Your task to perform on an android device: Go to Yahoo.com Image 0: 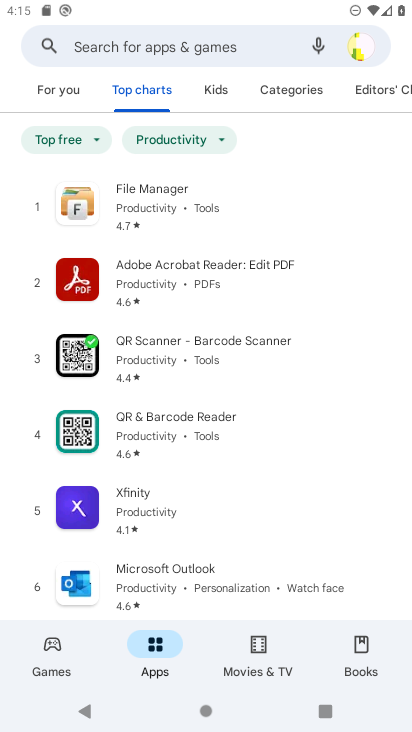
Step 0: press home button
Your task to perform on an android device: Go to Yahoo.com Image 1: 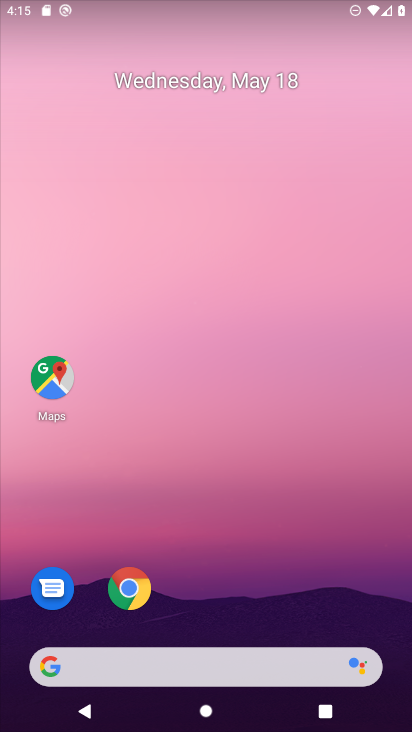
Step 1: click (144, 577)
Your task to perform on an android device: Go to Yahoo.com Image 2: 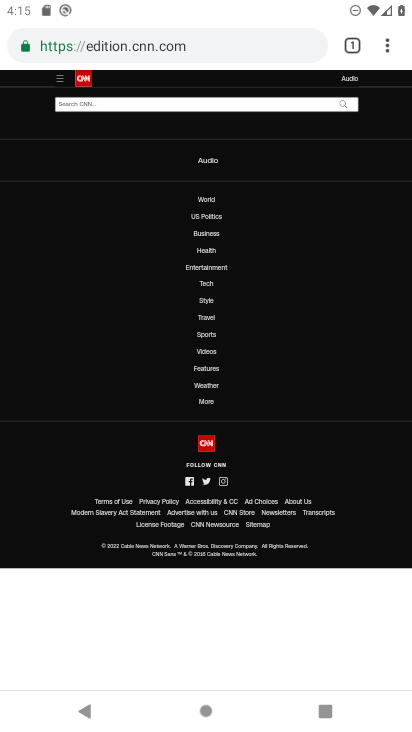
Step 2: click (228, 54)
Your task to perform on an android device: Go to Yahoo.com Image 3: 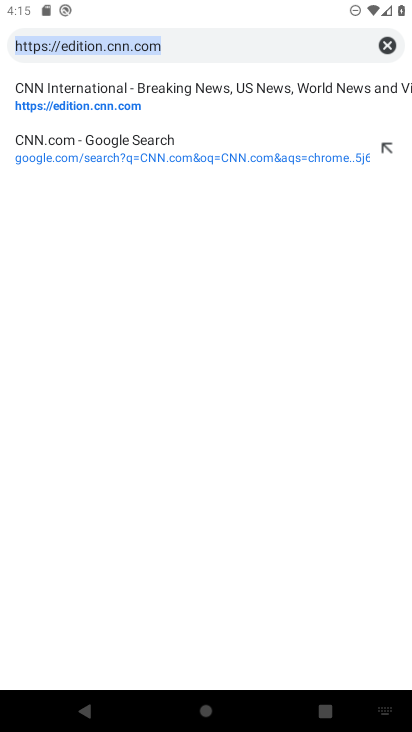
Step 3: type "yahoo.com"
Your task to perform on an android device: Go to Yahoo.com Image 4: 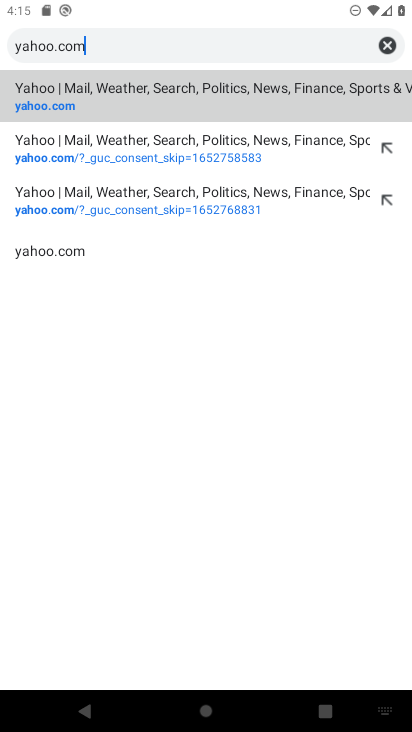
Step 4: click (151, 111)
Your task to perform on an android device: Go to Yahoo.com Image 5: 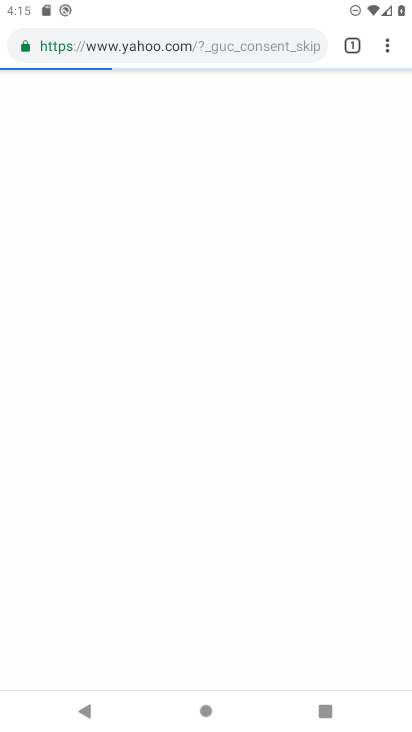
Step 5: task complete